Your task to perform on an android device: turn off smart reply in the gmail app Image 0: 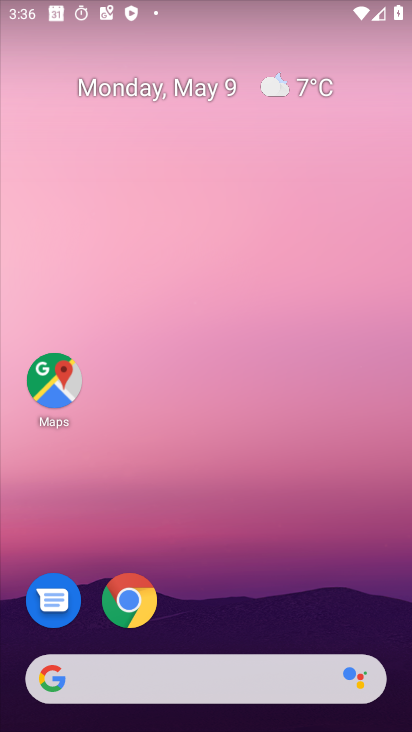
Step 0: drag from (240, 465) to (186, 89)
Your task to perform on an android device: turn off smart reply in the gmail app Image 1: 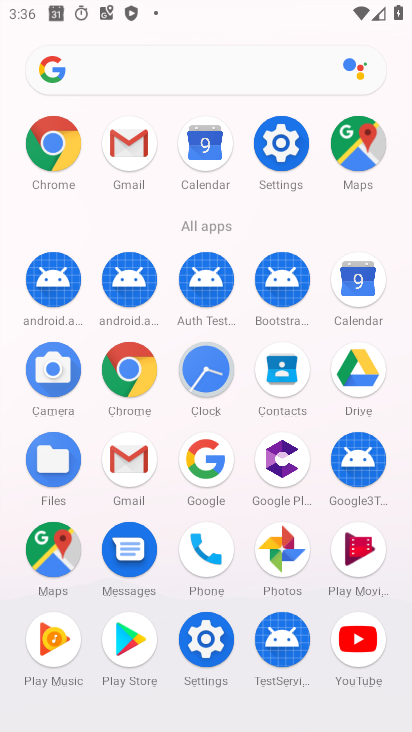
Step 1: click (117, 147)
Your task to perform on an android device: turn off smart reply in the gmail app Image 2: 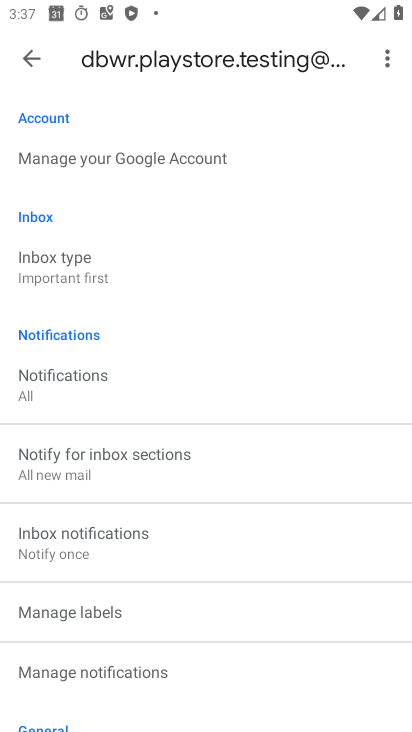
Step 2: drag from (237, 615) to (202, 149)
Your task to perform on an android device: turn off smart reply in the gmail app Image 3: 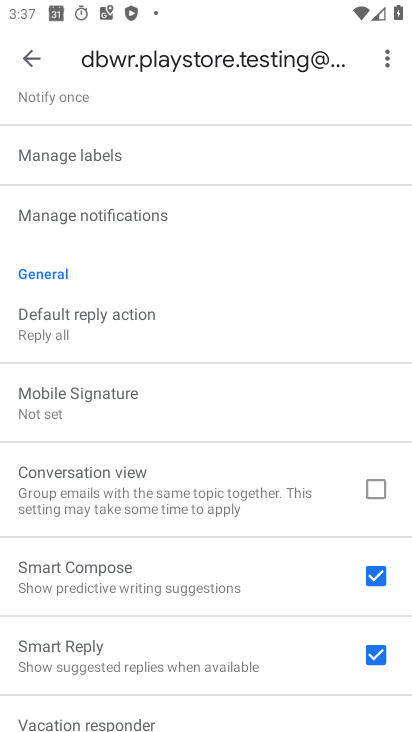
Step 3: drag from (254, 475) to (241, 164)
Your task to perform on an android device: turn off smart reply in the gmail app Image 4: 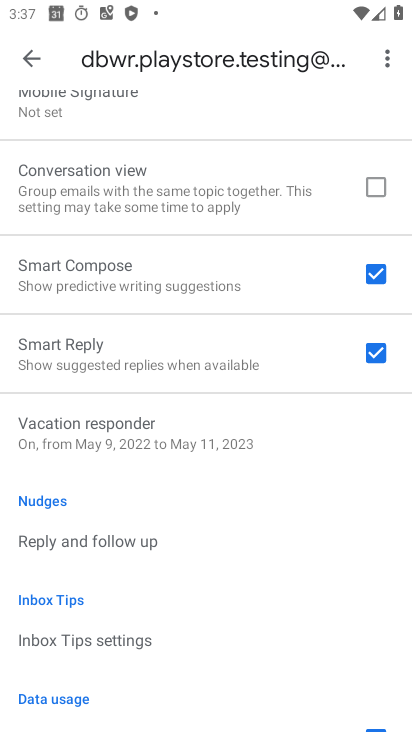
Step 4: drag from (230, 178) to (237, 572)
Your task to perform on an android device: turn off smart reply in the gmail app Image 5: 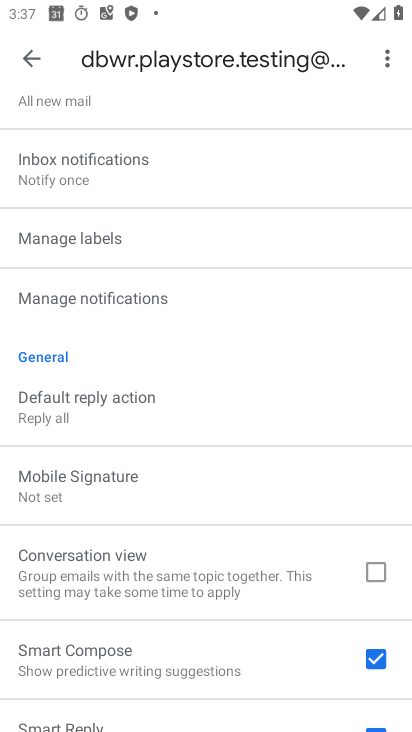
Step 5: drag from (177, 575) to (176, 179)
Your task to perform on an android device: turn off smart reply in the gmail app Image 6: 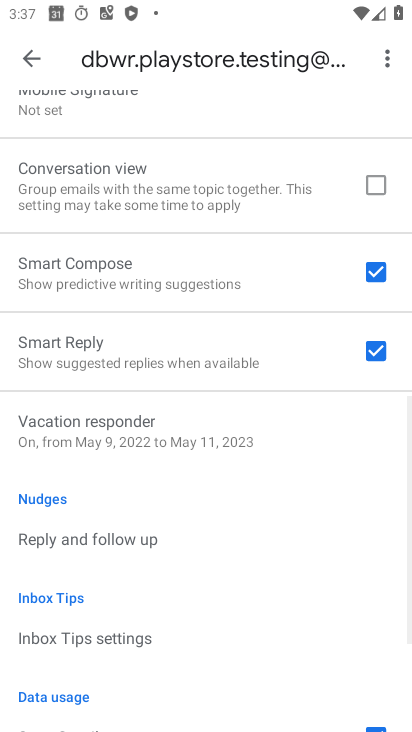
Step 6: drag from (175, 611) to (137, 205)
Your task to perform on an android device: turn off smart reply in the gmail app Image 7: 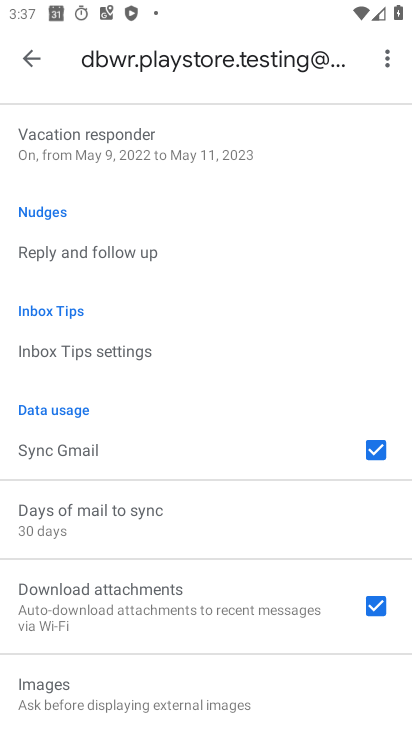
Step 7: drag from (162, 591) to (149, 219)
Your task to perform on an android device: turn off smart reply in the gmail app Image 8: 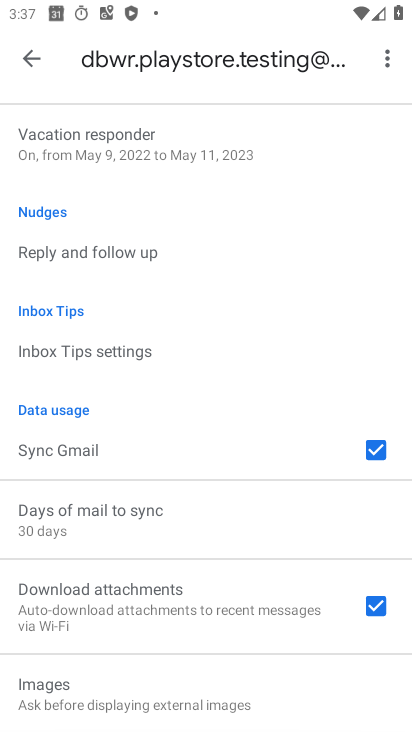
Step 8: drag from (148, 219) to (192, 687)
Your task to perform on an android device: turn off smart reply in the gmail app Image 9: 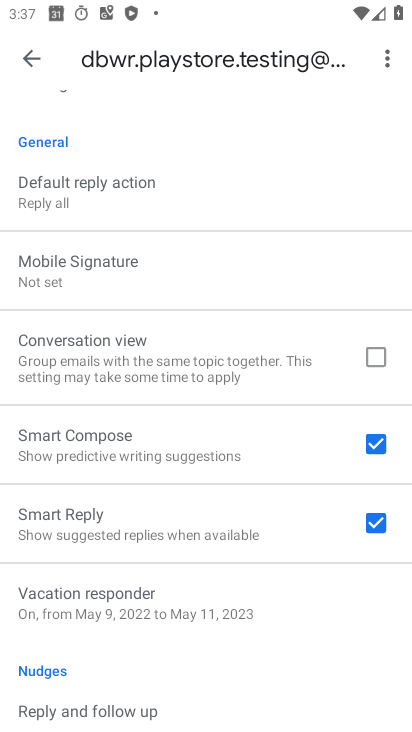
Step 9: drag from (186, 313) to (210, 648)
Your task to perform on an android device: turn off smart reply in the gmail app Image 10: 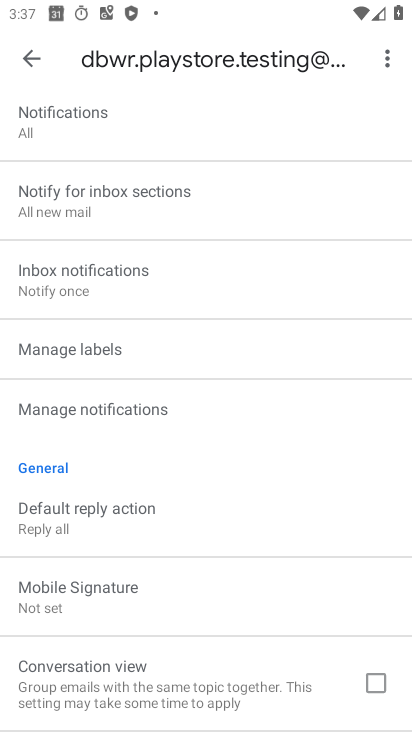
Step 10: drag from (218, 554) to (205, 296)
Your task to perform on an android device: turn off smart reply in the gmail app Image 11: 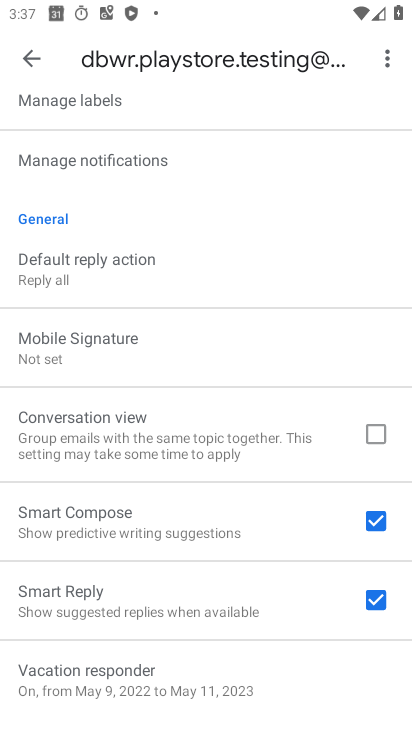
Step 11: click (380, 604)
Your task to perform on an android device: turn off smart reply in the gmail app Image 12: 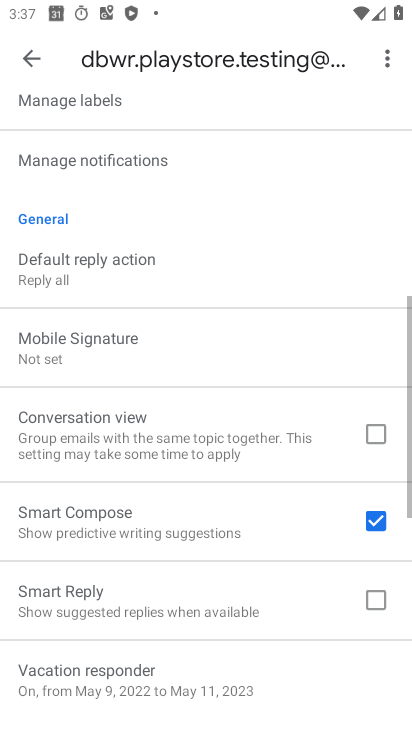
Step 12: task complete